Your task to perform on an android device: Show the shopping cart on newegg.com. Search for apple airpods on newegg.com, select the first entry, add it to the cart, then select checkout. Image 0: 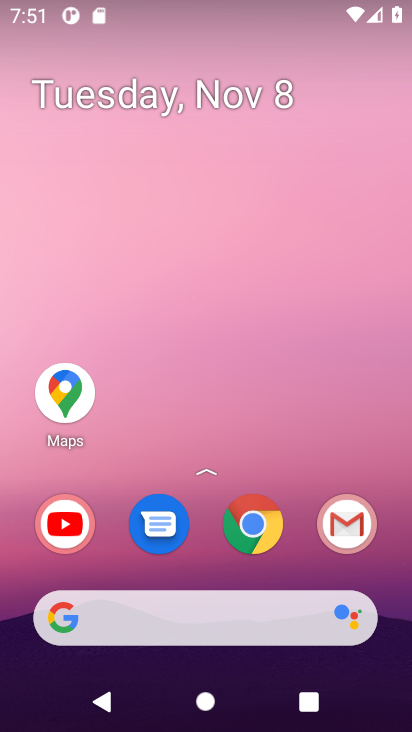
Step 0: click (267, 520)
Your task to perform on an android device: Show the shopping cart on newegg.com. Search for apple airpods on newegg.com, select the first entry, add it to the cart, then select checkout. Image 1: 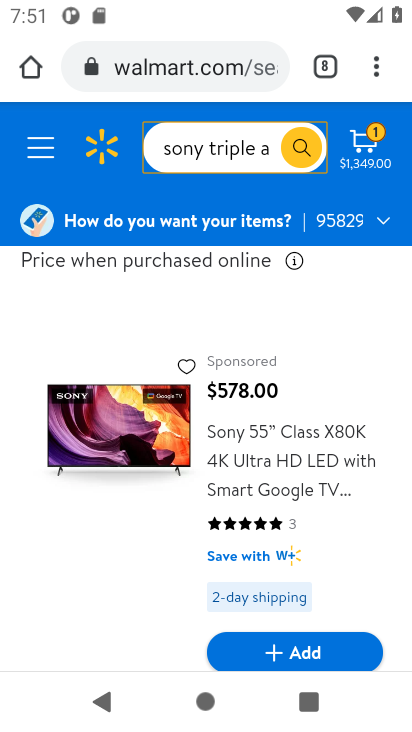
Step 1: click (184, 58)
Your task to perform on an android device: Show the shopping cart on newegg.com. Search for apple airpods on newegg.com, select the first entry, add it to the cart, then select checkout. Image 2: 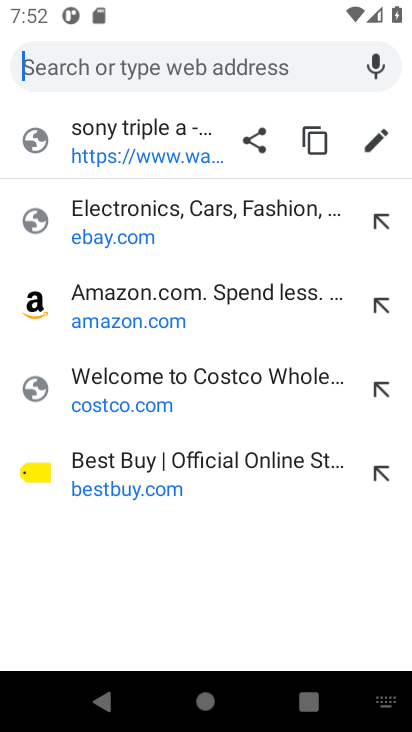
Step 2: type "newegg.com"
Your task to perform on an android device: Show the shopping cart on newegg.com. Search for apple airpods on newegg.com, select the first entry, add it to the cart, then select checkout. Image 3: 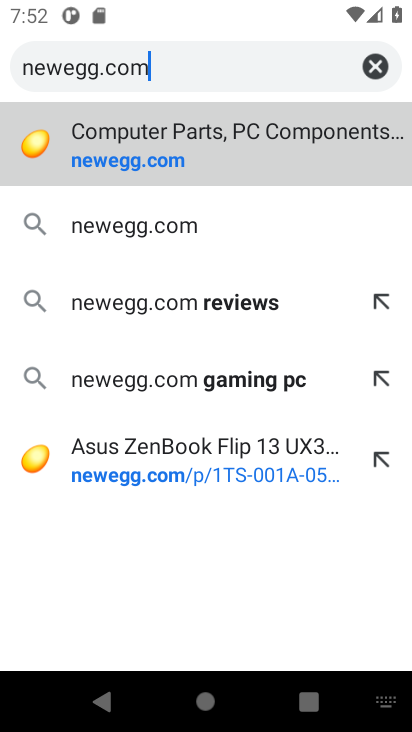
Step 3: click (108, 157)
Your task to perform on an android device: Show the shopping cart on newegg.com. Search for apple airpods on newegg.com, select the first entry, add it to the cart, then select checkout. Image 4: 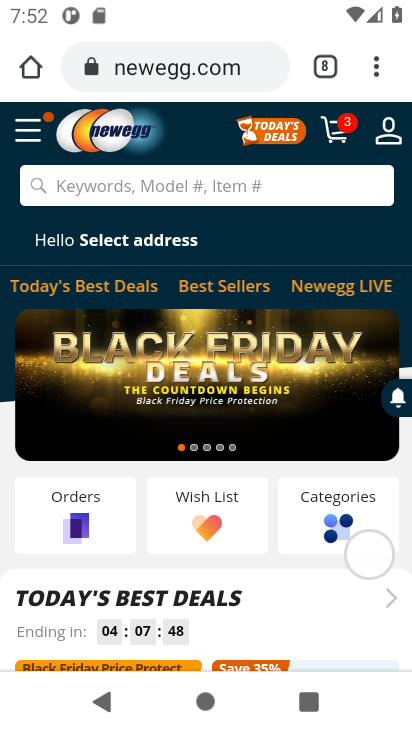
Step 4: click (340, 146)
Your task to perform on an android device: Show the shopping cart on newegg.com. Search for apple airpods on newegg.com, select the first entry, add it to the cart, then select checkout. Image 5: 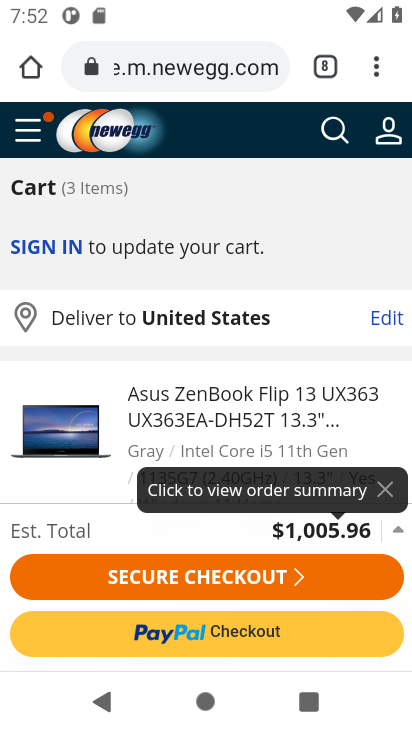
Step 5: click (320, 163)
Your task to perform on an android device: Show the shopping cart on newegg.com. Search for apple airpods on newegg.com, select the first entry, add it to the cart, then select checkout. Image 6: 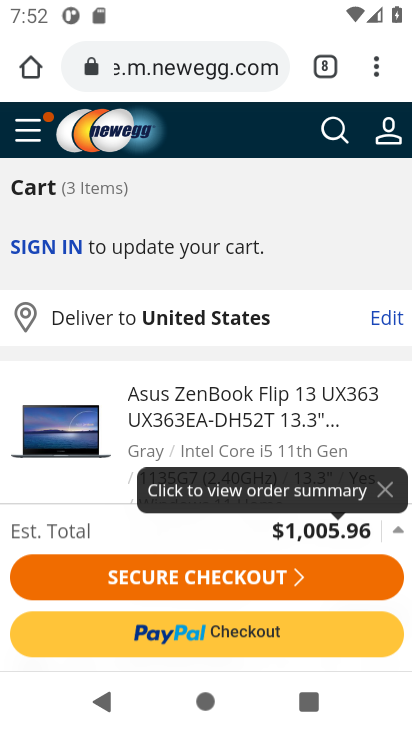
Step 6: click (333, 127)
Your task to perform on an android device: Show the shopping cart on newegg.com. Search for apple airpods on newegg.com, select the first entry, add it to the cart, then select checkout. Image 7: 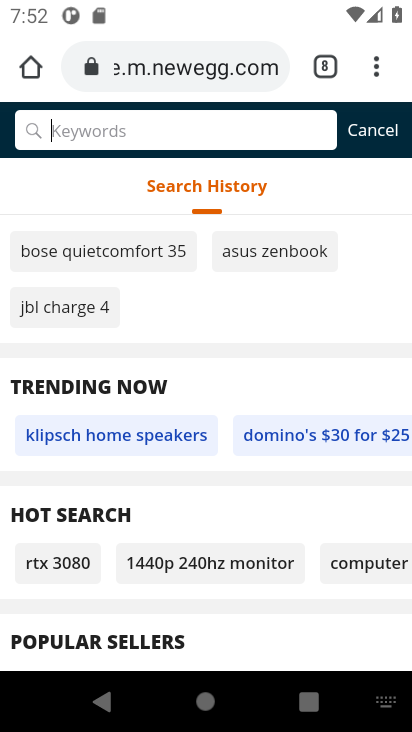
Step 7: type "apple airpods"
Your task to perform on an android device: Show the shopping cart on newegg.com. Search for apple airpods on newegg.com, select the first entry, add it to the cart, then select checkout. Image 8: 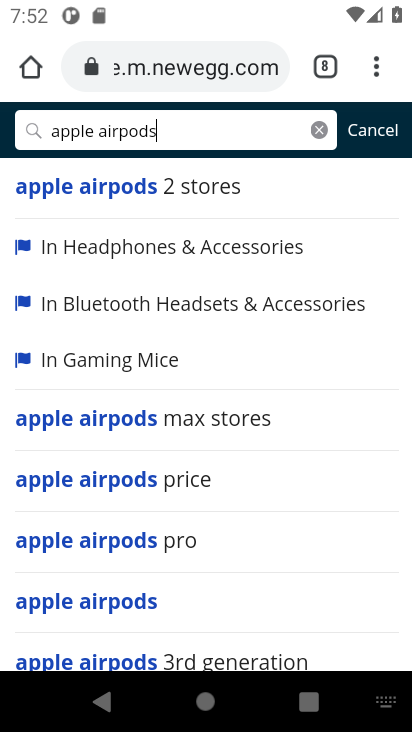
Step 8: click (146, 601)
Your task to perform on an android device: Show the shopping cart on newegg.com. Search for apple airpods on newegg.com, select the first entry, add it to the cart, then select checkout. Image 9: 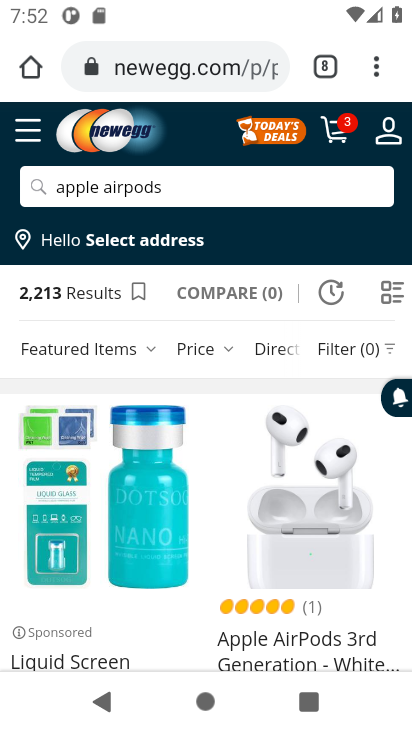
Step 9: task complete